Your task to perform on an android device: Open Google Maps Image 0: 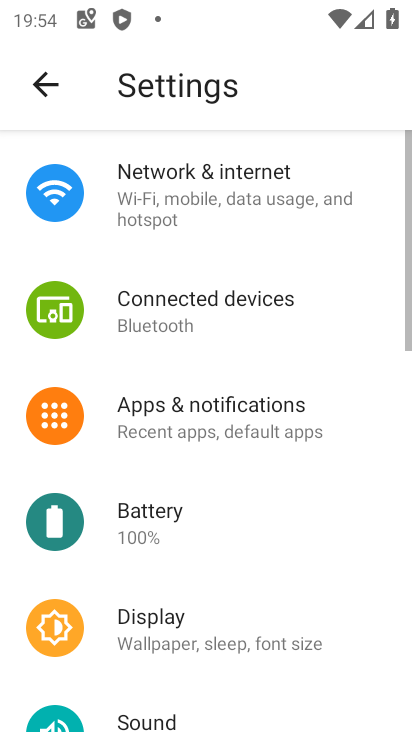
Step 0: press home button
Your task to perform on an android device: Open Google Maps Image 1: 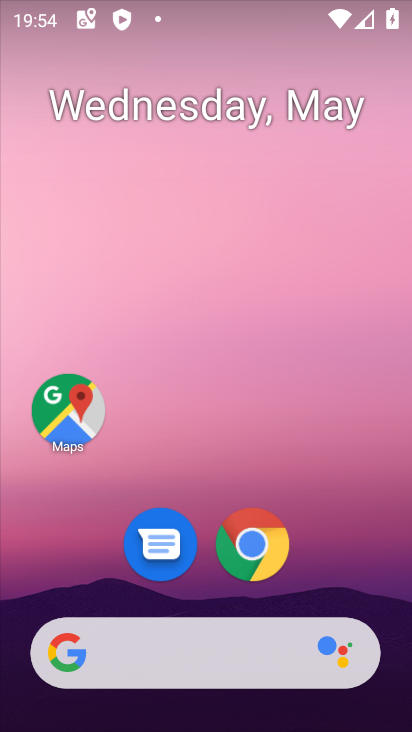
Step 1: click (60, 401)
Your task to perform on an android device: Open Google Maps Image 2: 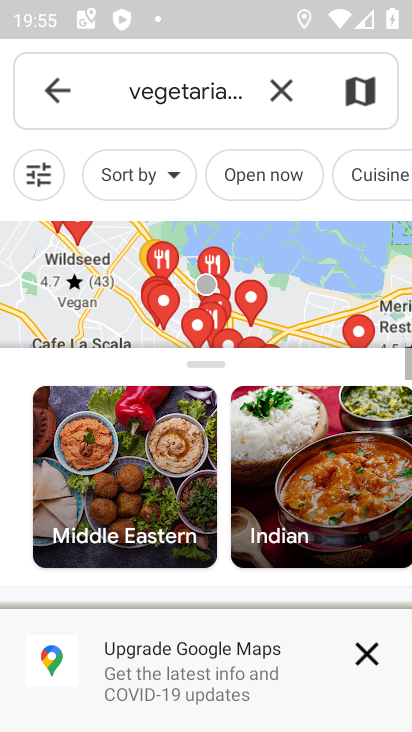
Step 2: task complete